Your task to perform on an android device: When is my next meeting? Image 0: 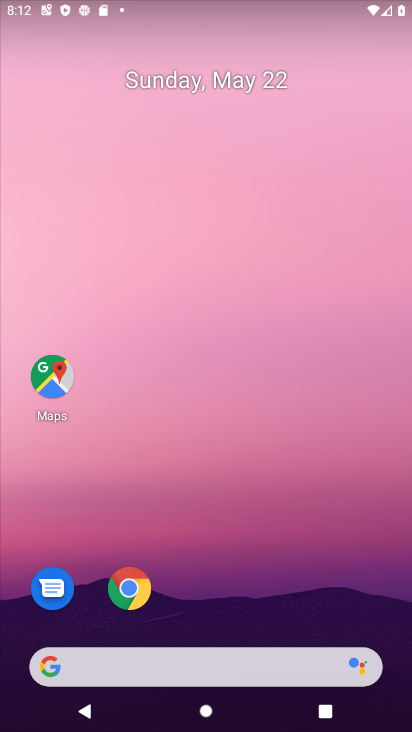
Step 0: drag from (268, 522) to (215, 42)
Your task to perform on an android device: When is my next meeting? Image 1: 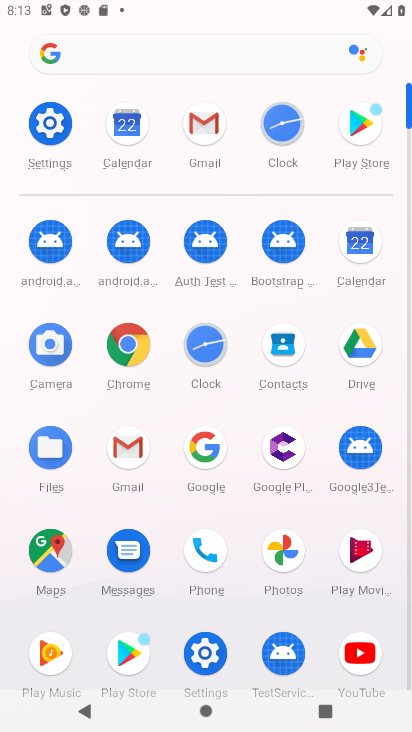
Step 1: click (355, 242)
Your task to perform on an android device: When is my next meeting? Image 2: 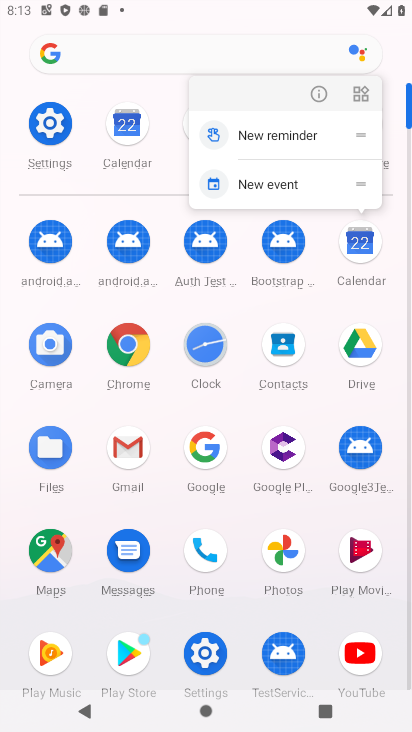
Step 2: click (353, 244)
Your task to perform on an android device: When is my next meeting? Image 3: 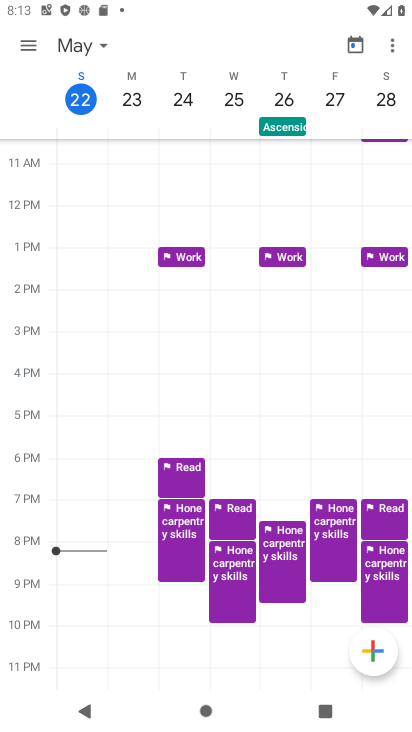
Step 3: task complete